Your task to perform on an android device: Open the calendar app, open the side menu, and click the "Day" option Image 0: 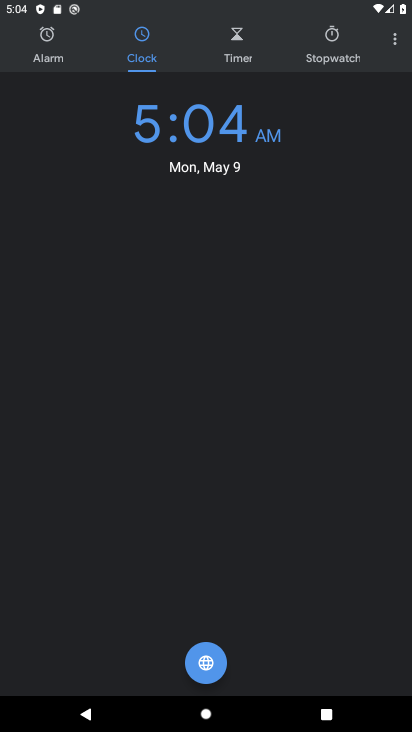
Step 0: press home button
Your task to perform on an android device: Open the calendar app, open the side menu, and click the "Day" option Image 1: 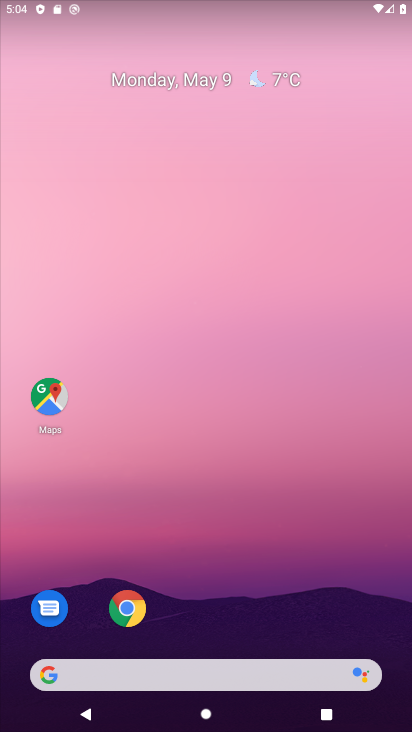
Step 1: drag from (199, 637) to (220, 15)
Your task to perform on an android device: Open the calendar app, open the side menu, and click the "Day" option Image 2: 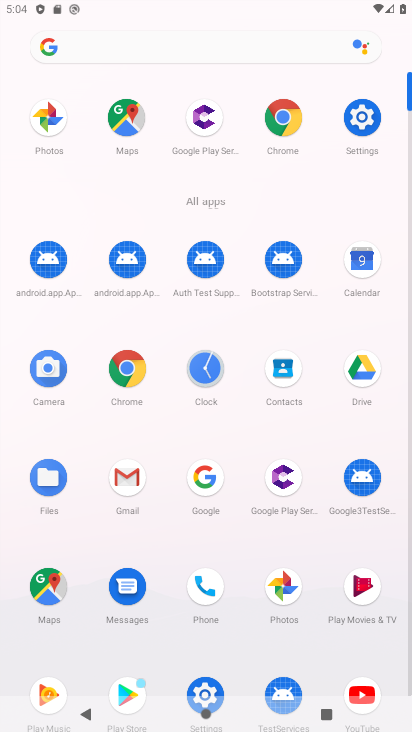
Step 2: click (373, 247)
Your task to perform on an android device: Open the calendar app, open the side menu, and click the "Day" option Image 3: 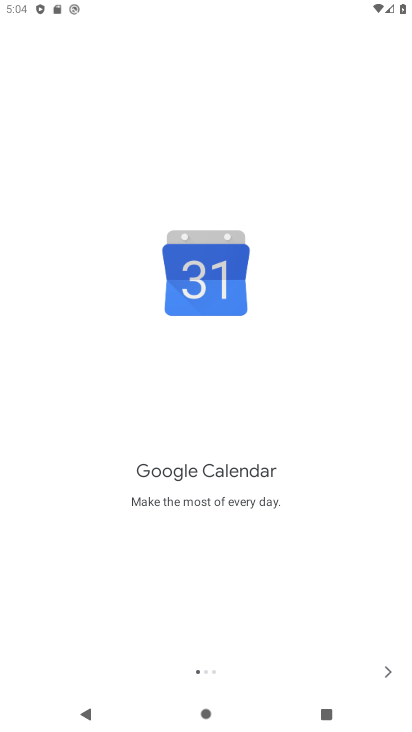
Step 3: click (386, 670)
Your task to perform on an android device: Open the calendar app, open the side menu, and click the "Day" option Image 4: 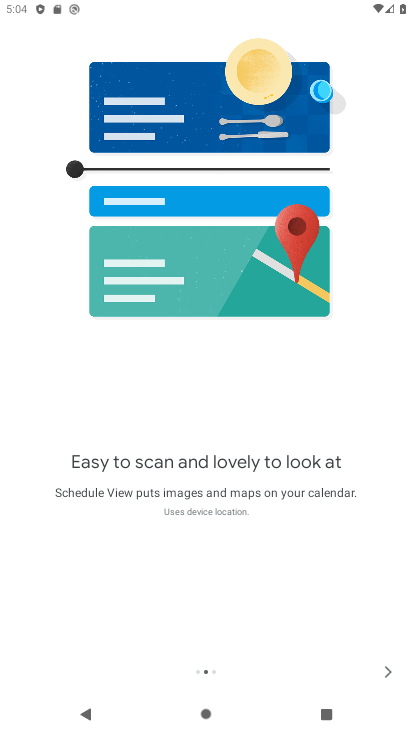
Step 4: click (386, 670)
Your task to perform on an android device: Open the calendar app, open the side menu, and click the "Day" option Image 5: 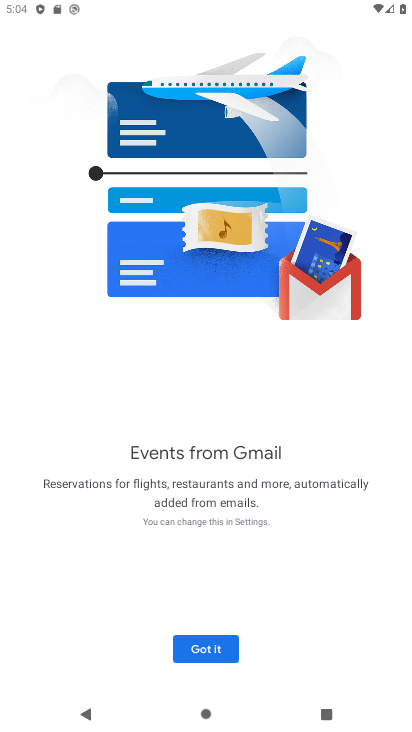
Step 5: click (219, 648)
Your task to perform on an android device: Open the calendar app, open the side menu, and click the "Day" option Image 6: 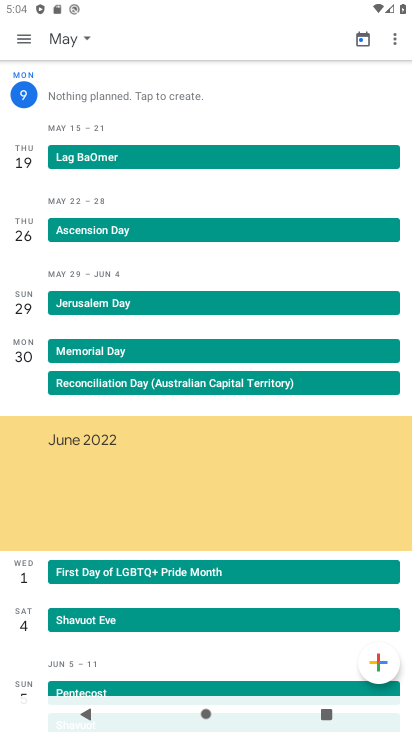
Step 6: click (38, 32)
Your task to perform on an android device: Open the calendar app, open the side menu, and click the "Day" option Image 7: 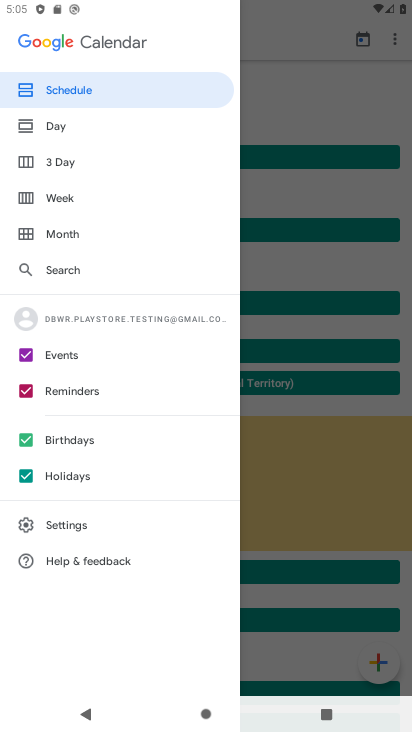
Step 7: click (102, 128)
Your task to perform on an android device: Open the calendar app, open the side menu, and click the "Day" option Image 8: 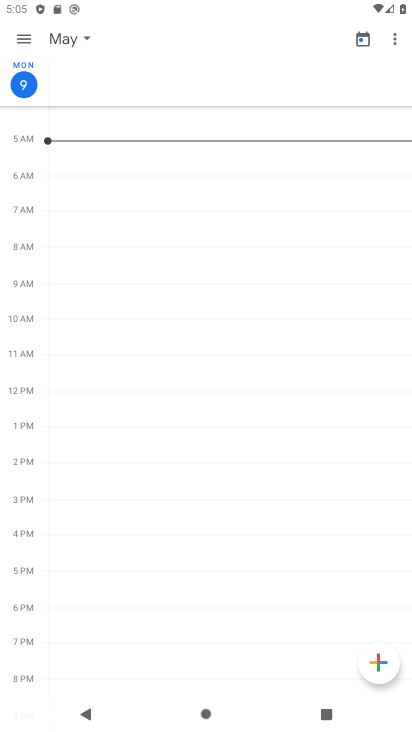
Step 8: task complete